Your task to perform on an android device: turn on the 12-hour format for clock Image 0: 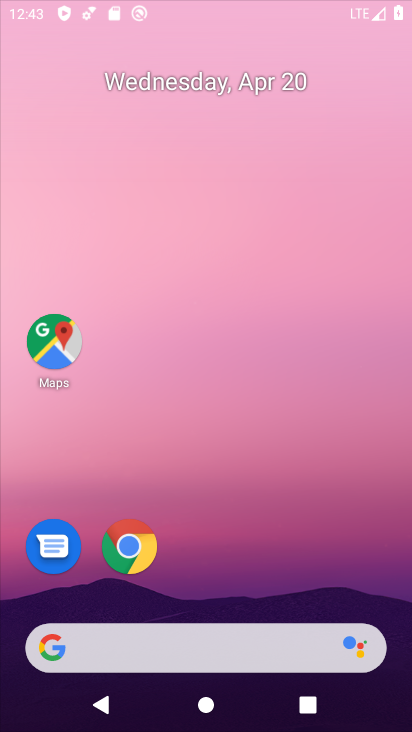
Step 0: drag from (133, 607) to (271, 68)
Your task to perform on an android device: turn on the 12-hour format for clock Image 1: 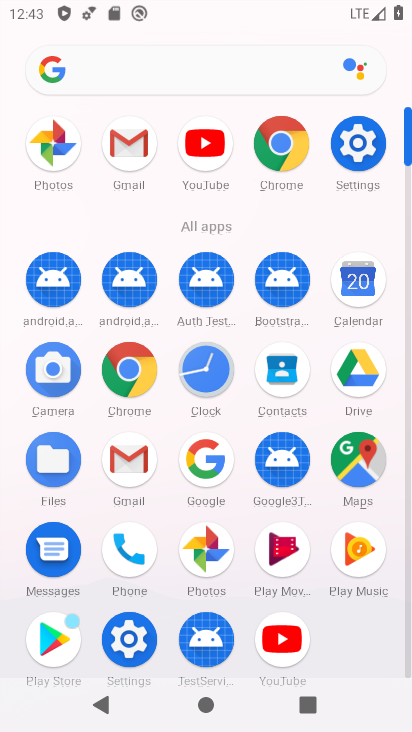
Step 1: click (207, 379)
Your task to perform on an android device: turn on the 12-hour format for clock Image 2: 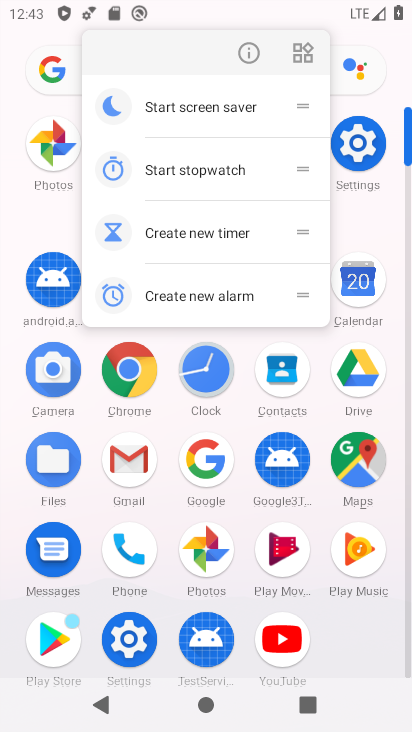
Step 2: click (204, 375)
Your task to perform on an android device: turn on the 12-hour format for clock Image 3: 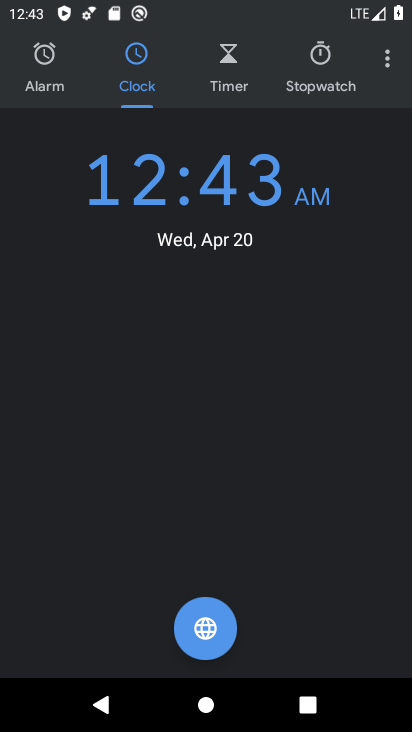
Step 3: click (385, 61)
Your task to perform on an android device: turn on the 12-hour format for clock Image 4: 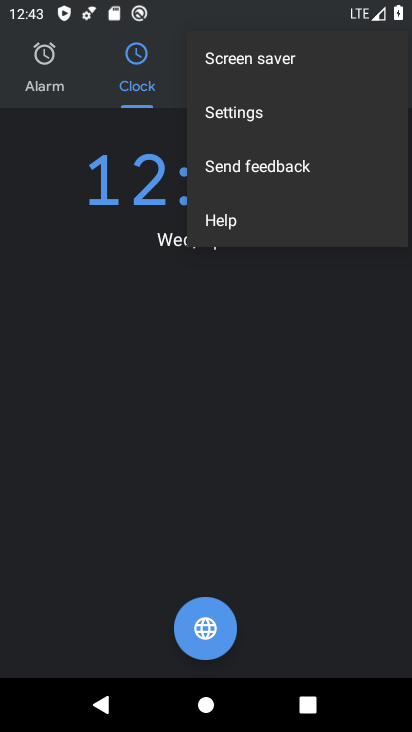
Step 4: click (347, 114)
Your task to perform on an android device: turn on the 12-hour format for clock Image 5: 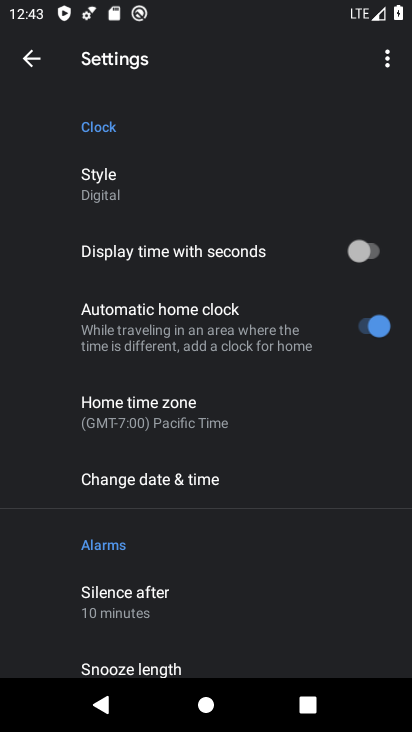
Step 5: click (231, 483)
Your task to perform on an android device: turn on the 12-hour format for clock Image 6: 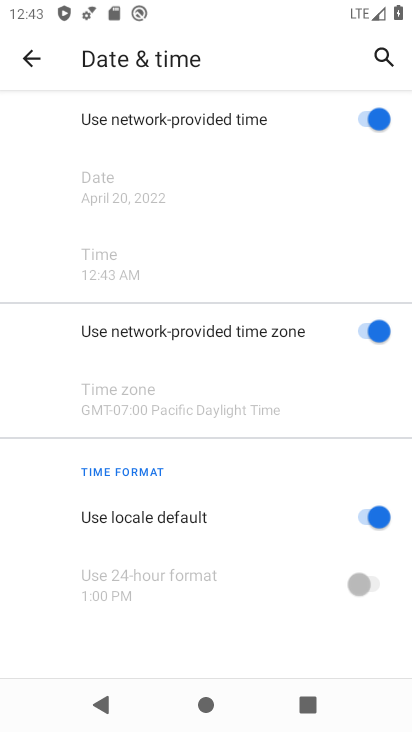
Step 6: task complete